Your task to perform on an android device: Search for alienware aurora on amazon.com, select the first entry, add it to the cart, then select checkout. Image 0: 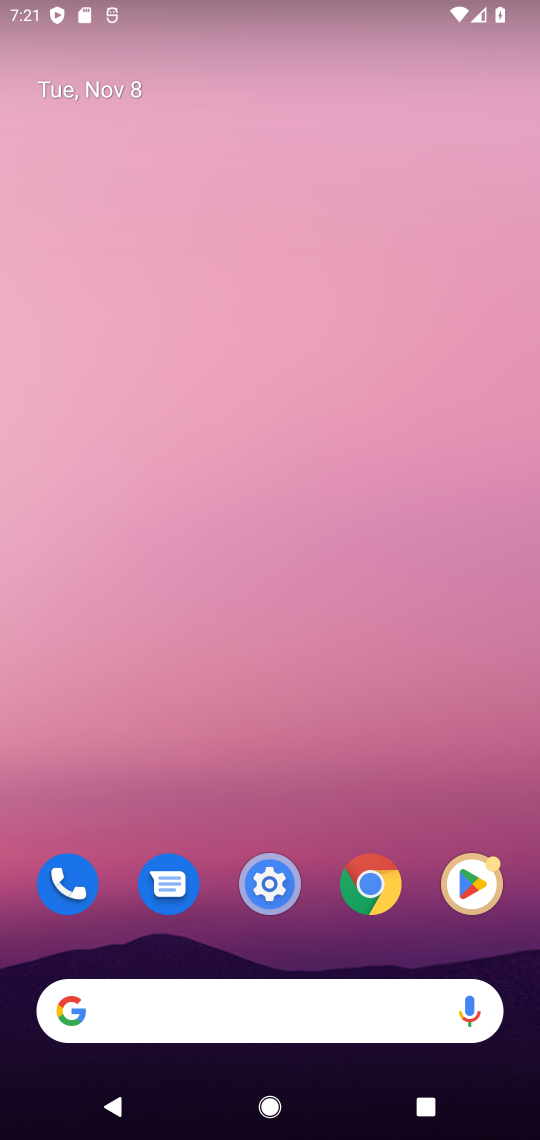
Step 0: drag from (279, 898) to (279, 390)
Your task to perform on an android device: Search for alienware aurora on amazon.com, select the first entry, add it to the cart, then select checkout. Image 1: 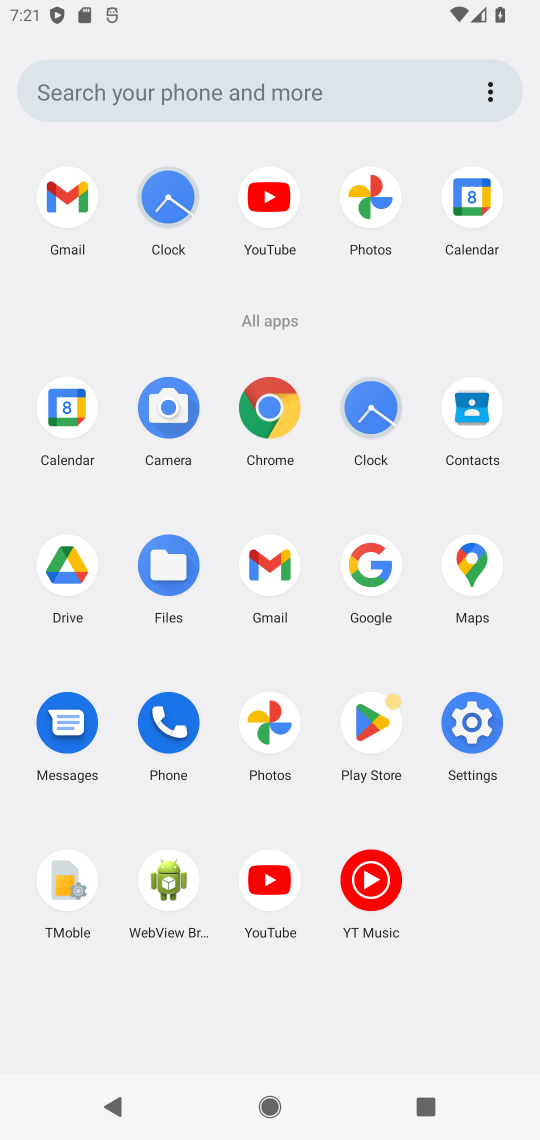
Step 1: click (355, 577)
Your task to perform on an android device: Search for alienware aurora on amazon.com, select the first entry, add it to the cart, then select checkout. Image 2: 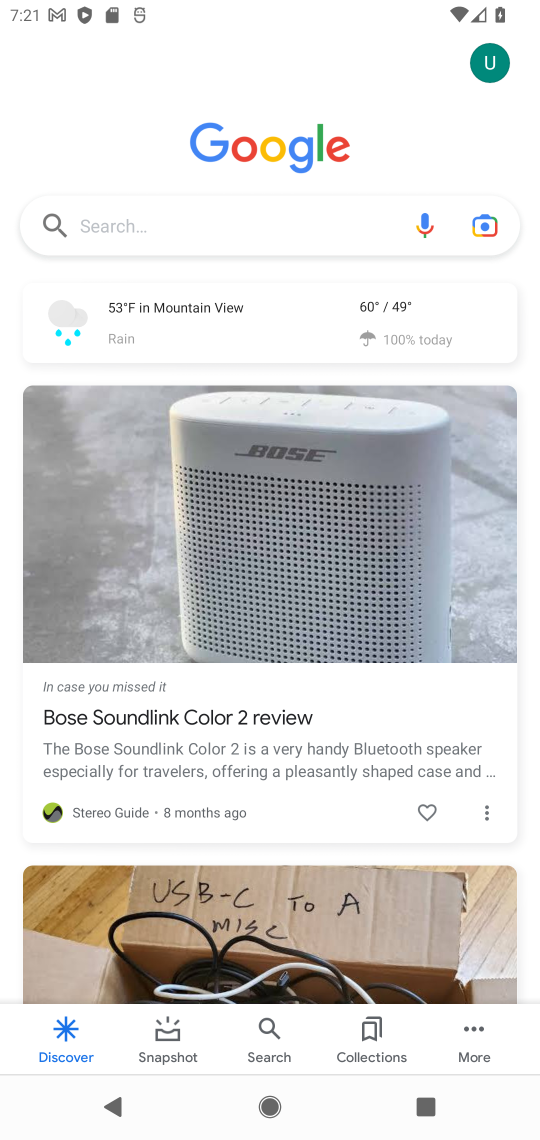
Step 2: click (188, 228)
Your task to perform on an android device: Search for alienware aurora on amazon.com, select the first entry, add it to the cart, then select checkout. Image 3: 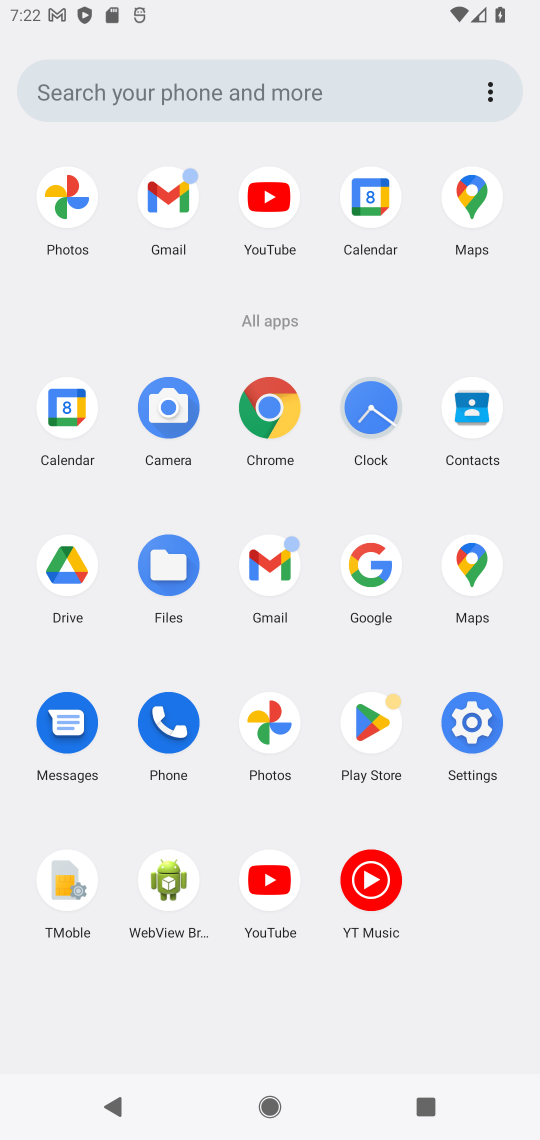
Step 3: click (370, 575)
Your task to perform on an android device: Search for alienware aurora on amazon.com, select the first entry, add it to the cart, then select checkout. Image 4: 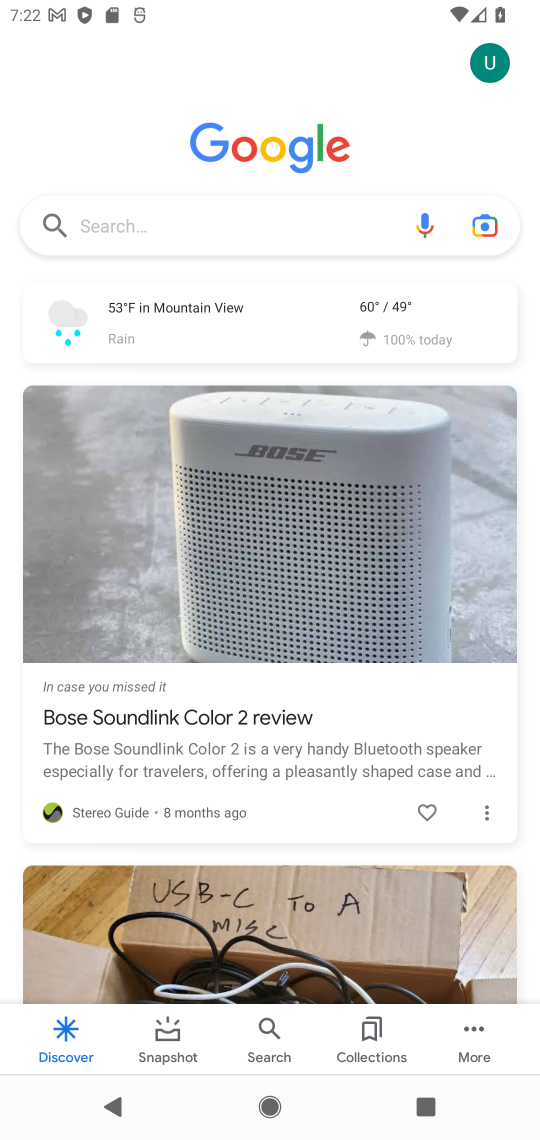
Step 4: click (243, 224)
Your task to perform on an android device: Search for alienware aurora on amazon.com, select the first entry, add it to the cart, then select checkout. Image 5: 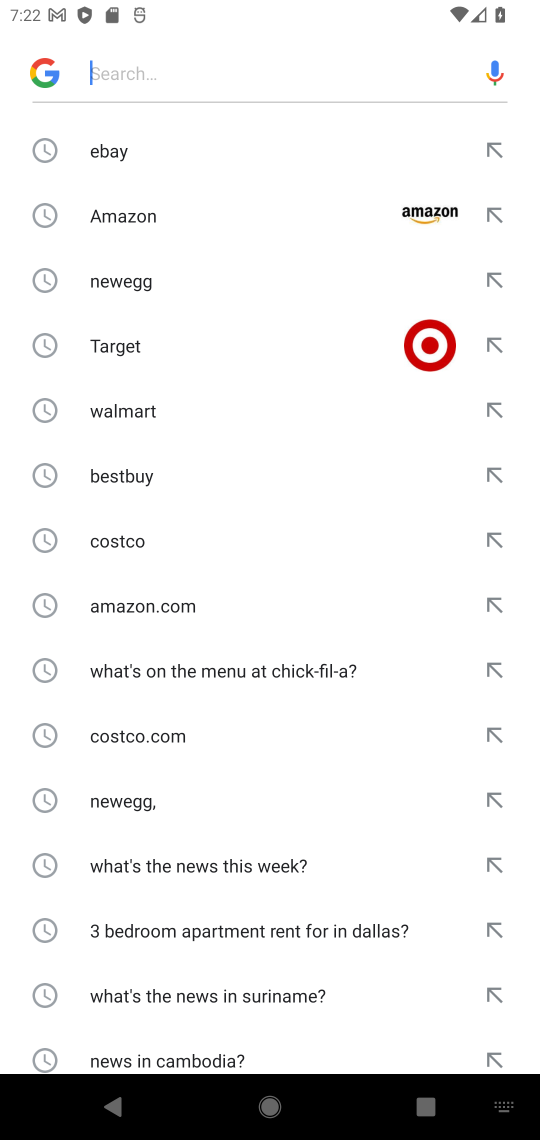
Step 5: type "amazon.com"
Your task to perform on an android device: Search for alienware aurora on amazon.com, select the first entry, add it to the cart, then select checkout. Image 6: 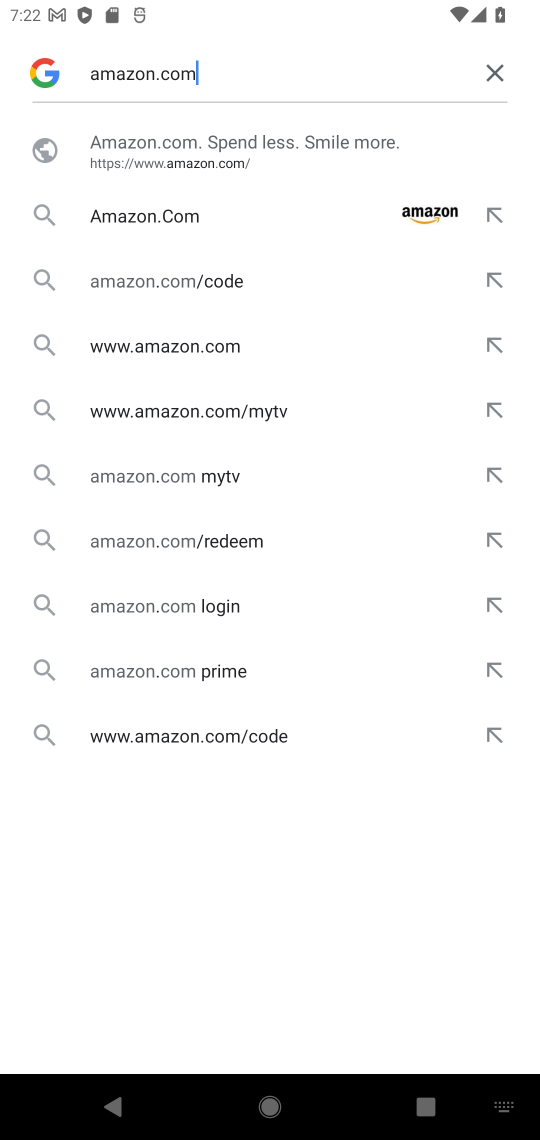
Step 6: click (256, 220)
Your task to perform on an android device: Search for alienware aurora on amazon.com, select the first entry, add it to the cart, then select checkout. Image 7: 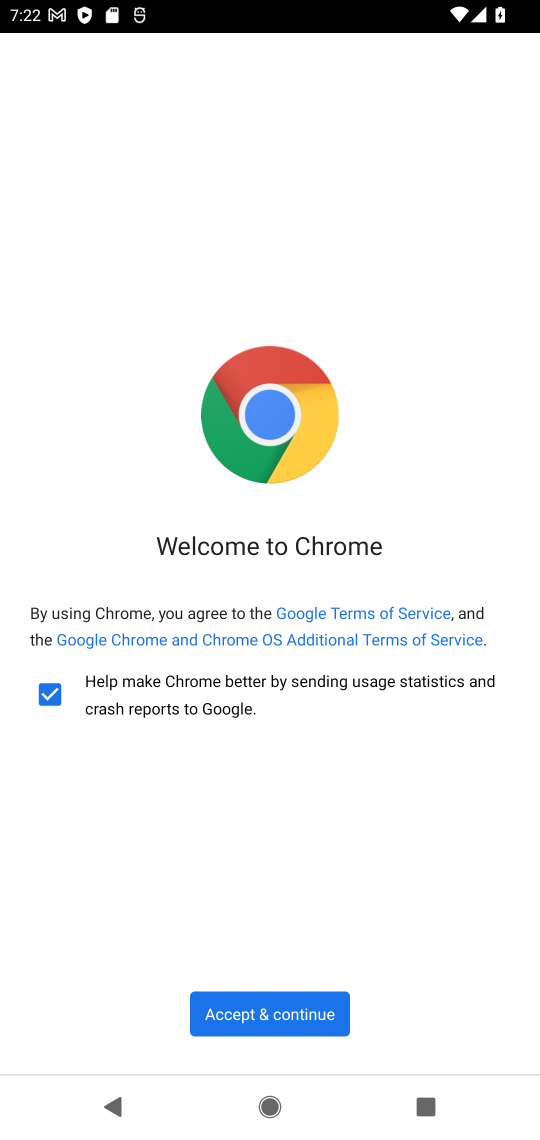
Step 7: click (308, 1008)
Your task to perform on an android device: Search for alienware aurora on amazon.com, select the first entry, add it to the cart, then select checkout. Image 8: 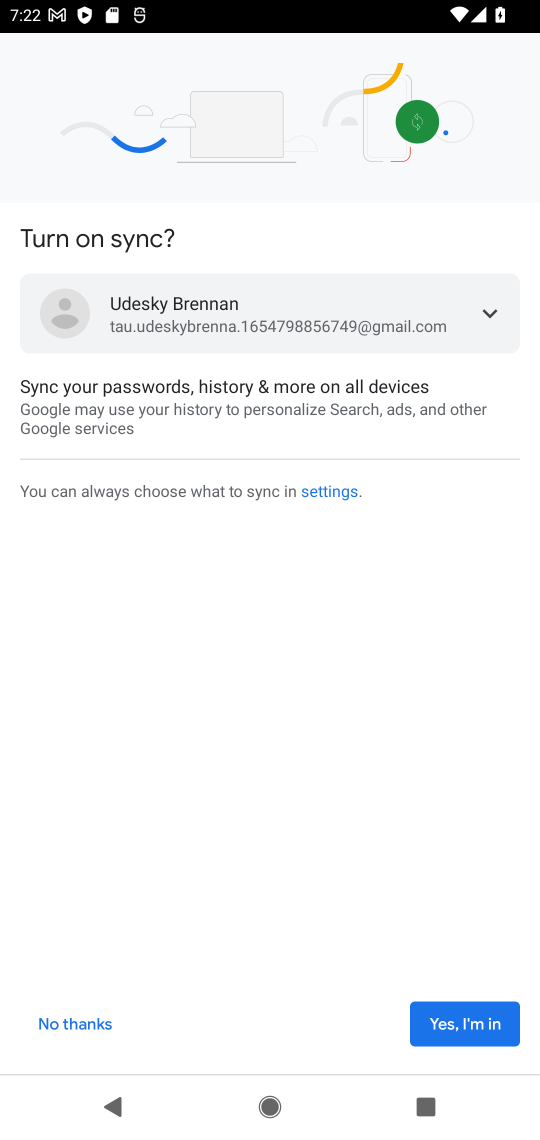
Step 8: click (429, 1024)
Your task to perform on an android device: Search for alienware aurora on amazon.com, select the first entry, add it to the cart, then select checkout. Image 9: 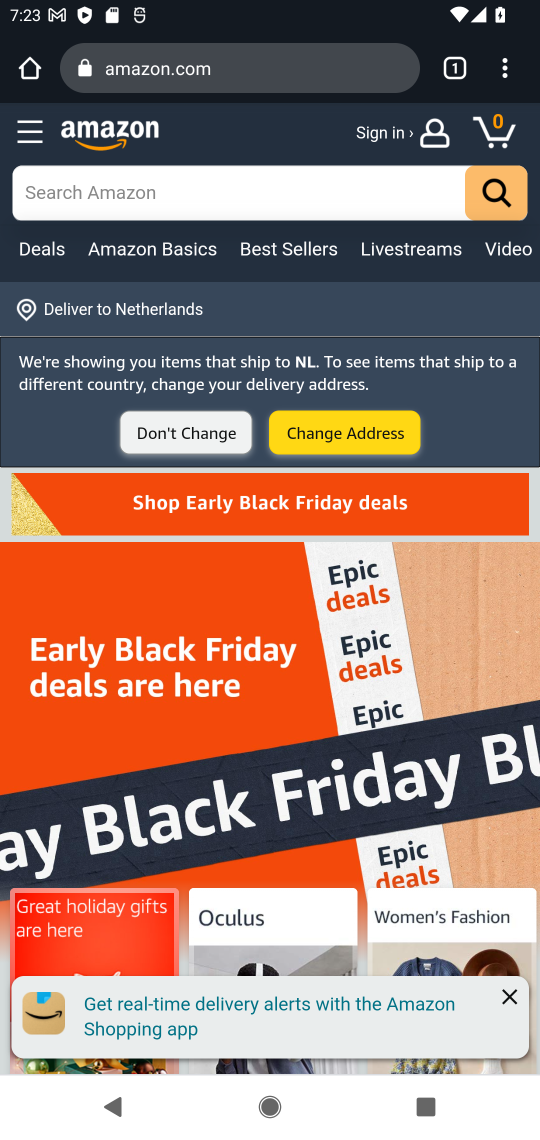
Step 9: click (181, 186)
Your task to perform on an android device: Search for alienware aurora on amazon.com, select the first entry, add it to the cart, then select checkout. Image 10: 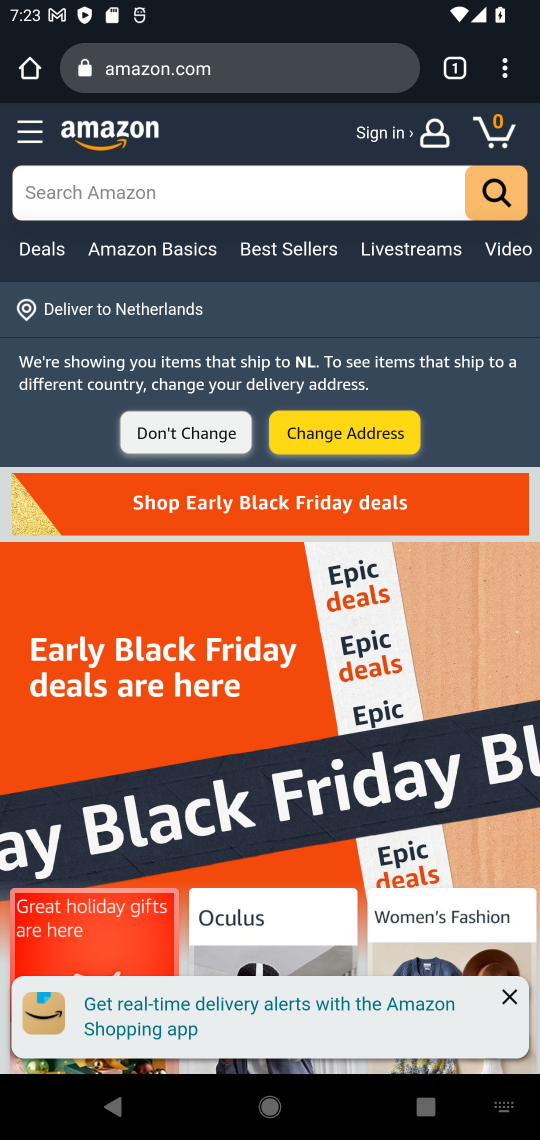
Step 10: type "alienware aurora"
Your task to perform on an android device: Search for alienware aurora on amazon.com, select the first entry, add it to the cart, then select checkout. Image 11: 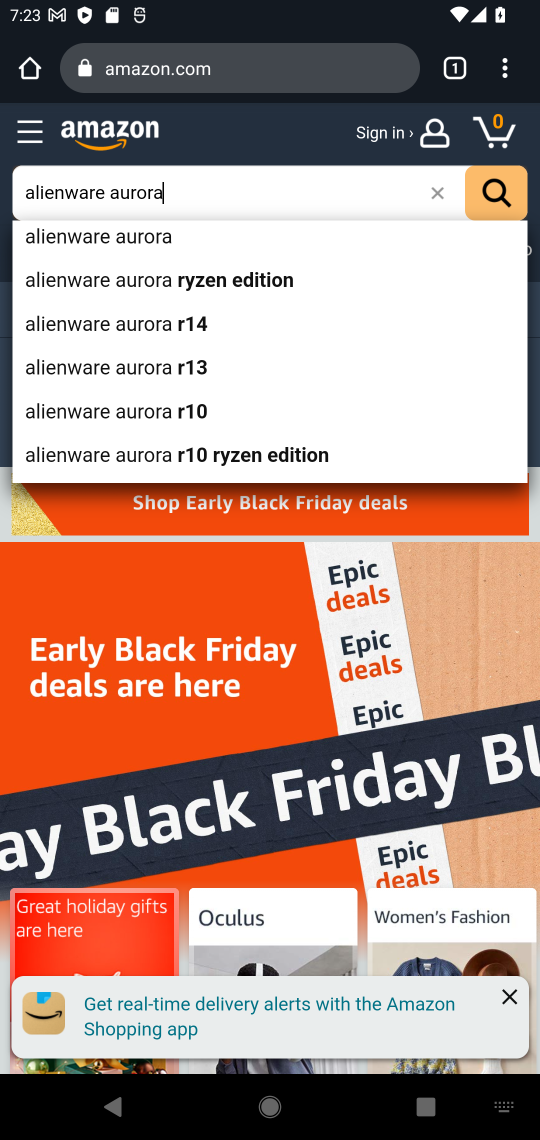
Step 11: click (147, 237)
Your task to perform on an android device: Search for alienware aurora on amazon.com, select the first entry, add it to the cart, then select checkout. Image 12: 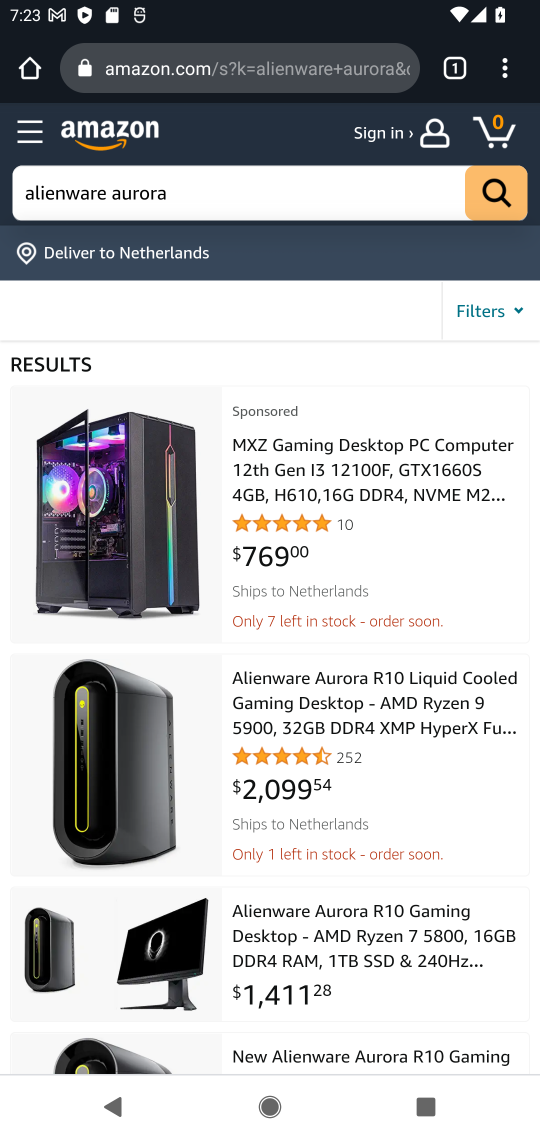
Step 12: click (225, 500)
Your task to perform on an android device: Search for alienware aurora on amazon.com, select the first entry, add it to the cart, then select checkout. Image 13: 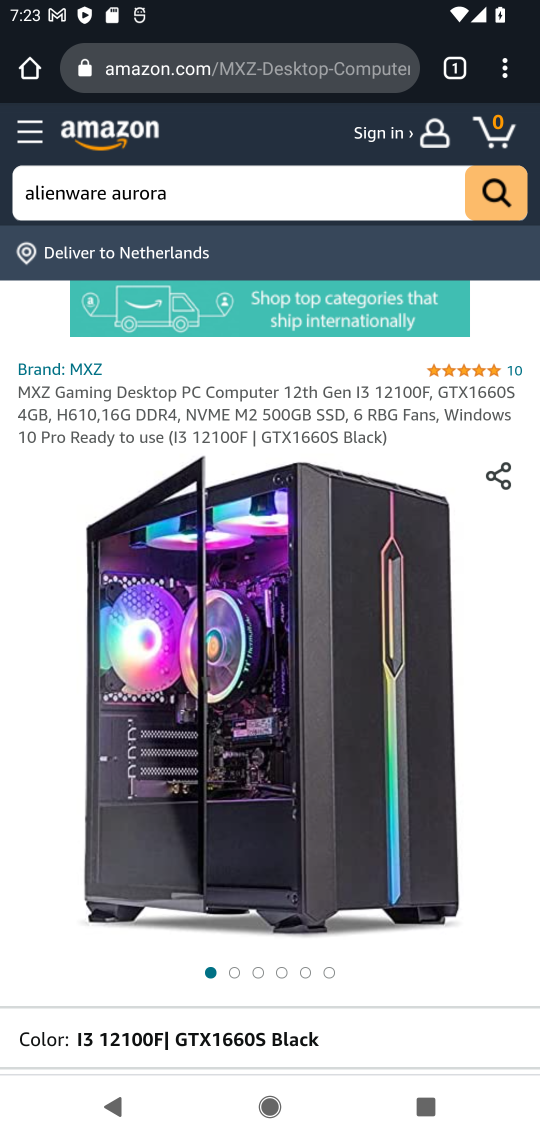
Step 13: drag from (369, 863) to (360, 661)
Your task to perform on an android device: Search for alienware aurora on amazon.com, select the first entry, add it to the cart, then select checkout. Image 14: 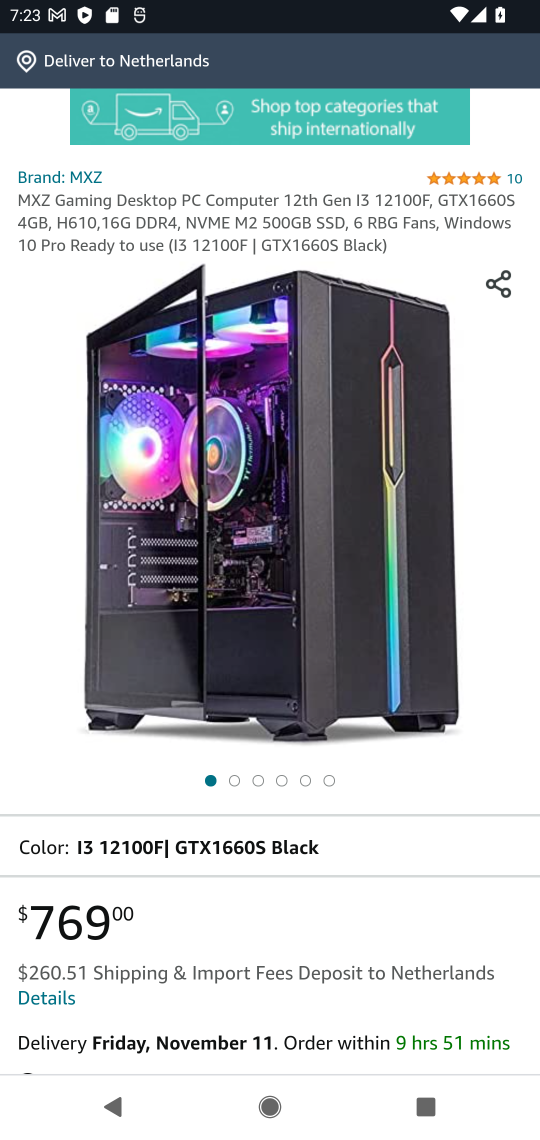
Step 14: drag from (359, 888) to (371, 529)
Your task to perform on an android device: Search for alienware aurora on amazon.com, select the first entry, add it to the cart, then select checkout. Image 15: 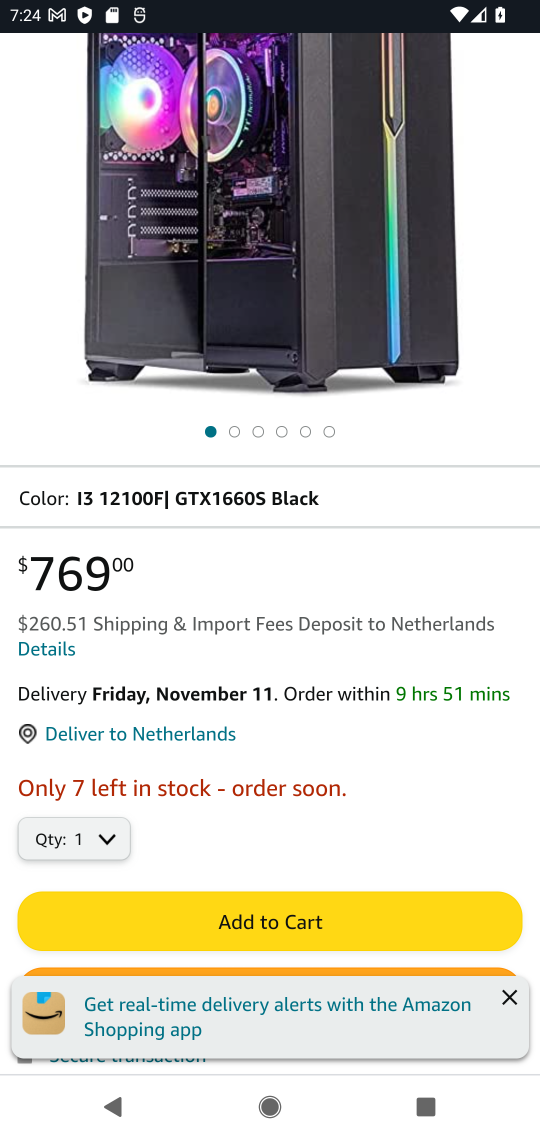
Step 15: click (396, 926)
Your task to perform on an android device: Search for alienware aurora on amazon.com, select the first entry, add it to the cart, then select checkout. Image 16: 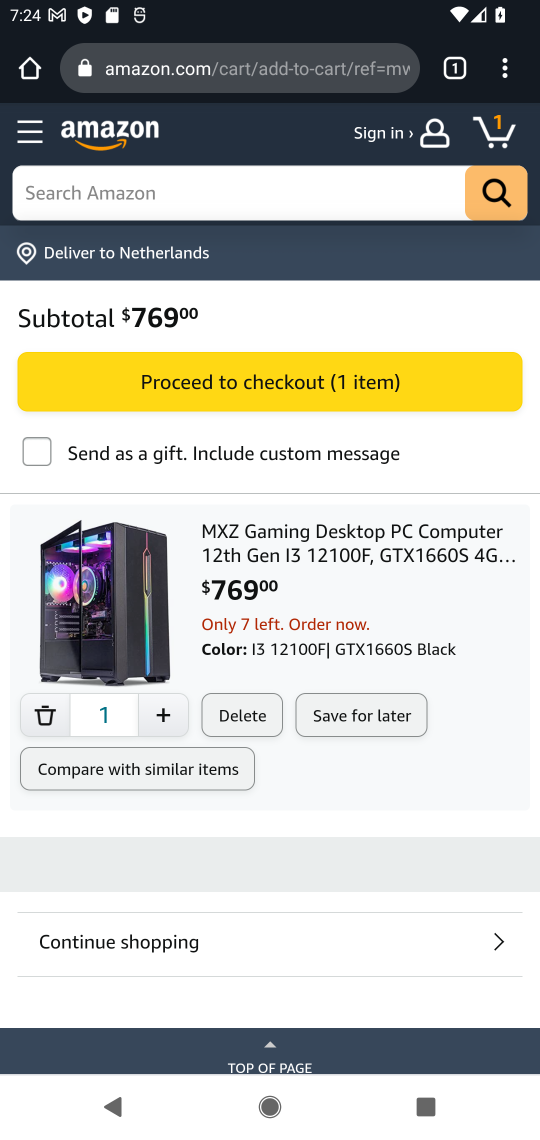
Step 16: click (247, 396)
Your task to perform on an android device: Search for alienware aurora on amazon.com, select the first entry, add it to the cart, then select checkout. Image 17: 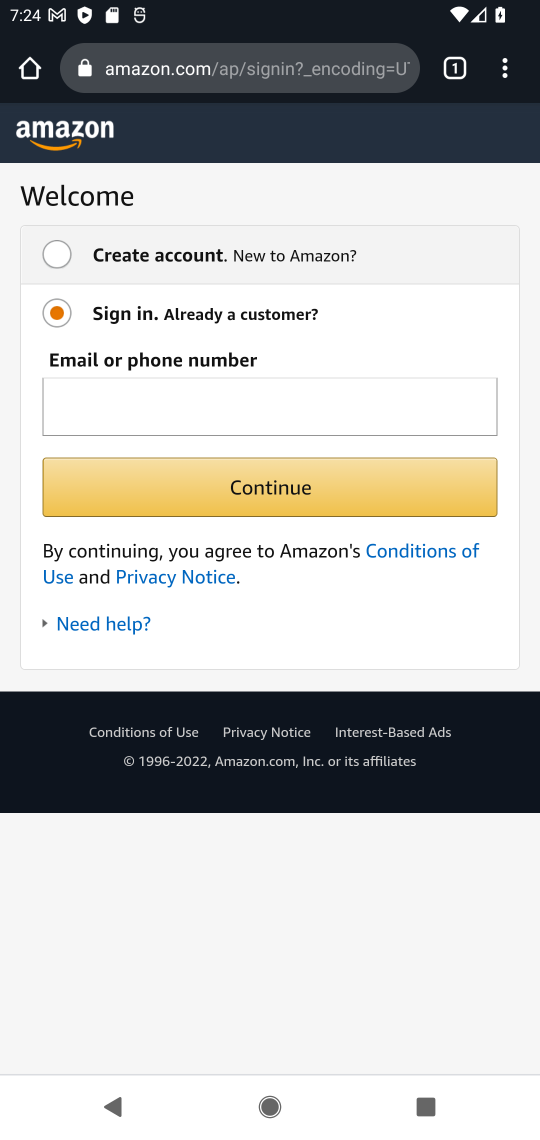
Step 17: task complete